Your task to perform on an android device: Open Wikipedia Image 0: 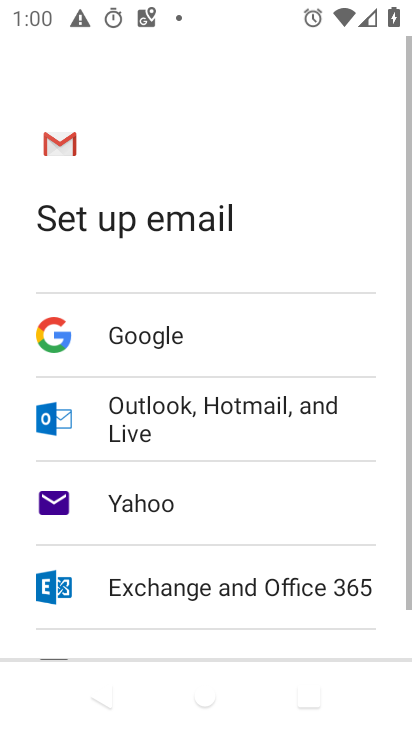
Step 0: press back button
Your task to perform on an android device: Open Wikipedia Image 1: 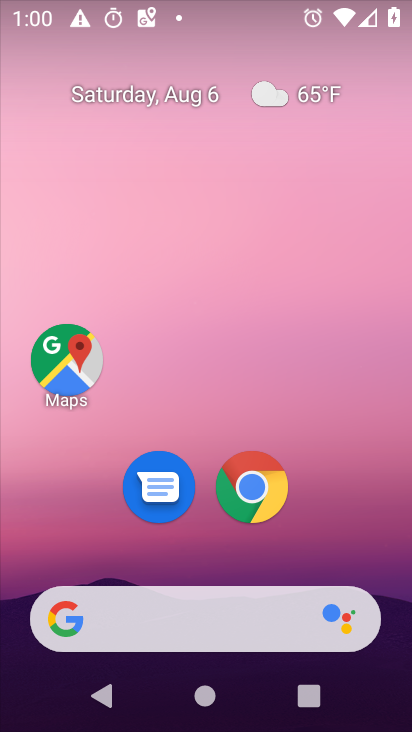
Step 1: click (256, 486)
Your task to perform on an android device: Open Wikipedia Image 2: 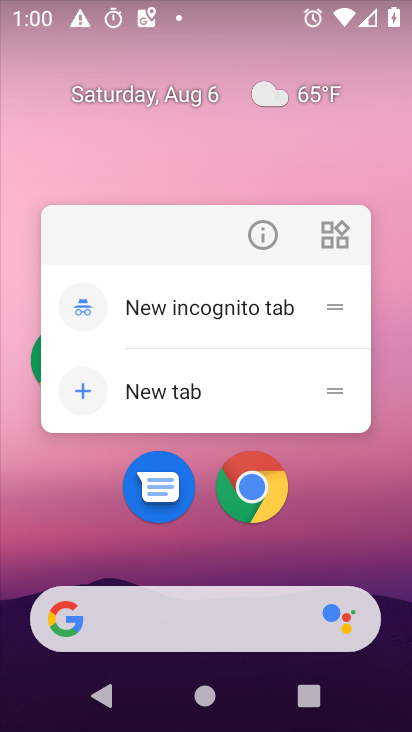
Step 2: click (246, 490)
Your task to perform on an android device: Open Wikipedia Image 3: 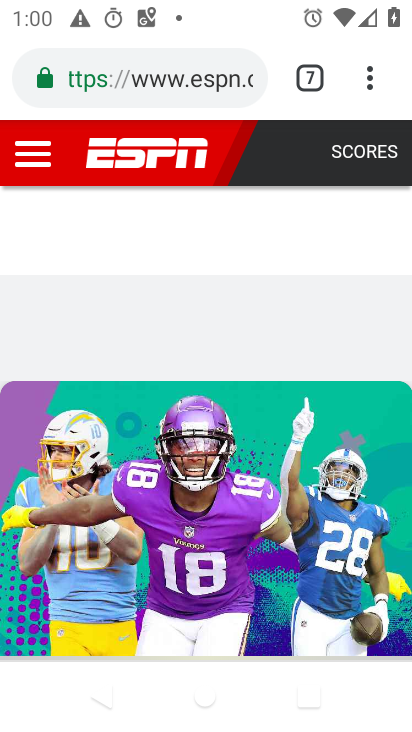
Step 3: click (318, 80)
Your task to perform on an android device: Open Wikipedia Image 4: 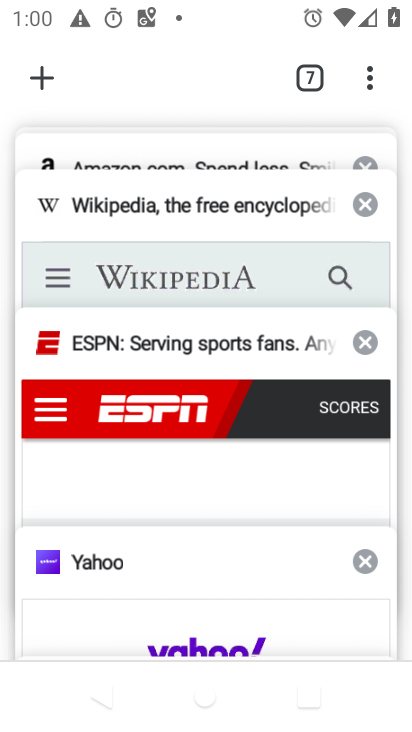
Step 4: click (136, 199)
Your task to perform on an android device: Open Wikipedia Image 5: 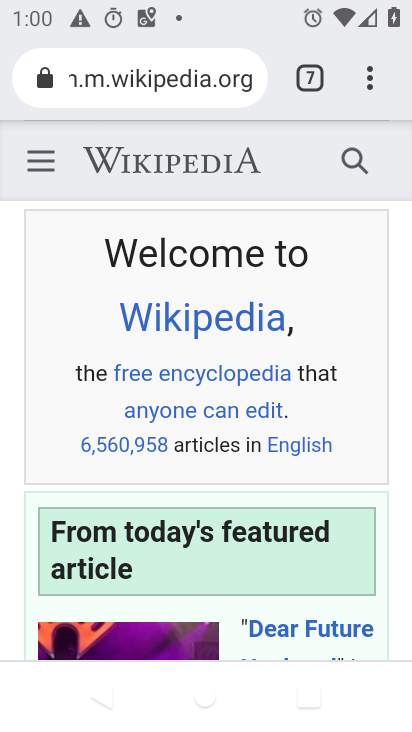
Step 5: task complete